Your task to perform on an android device: Go to privacy settings Image 0: 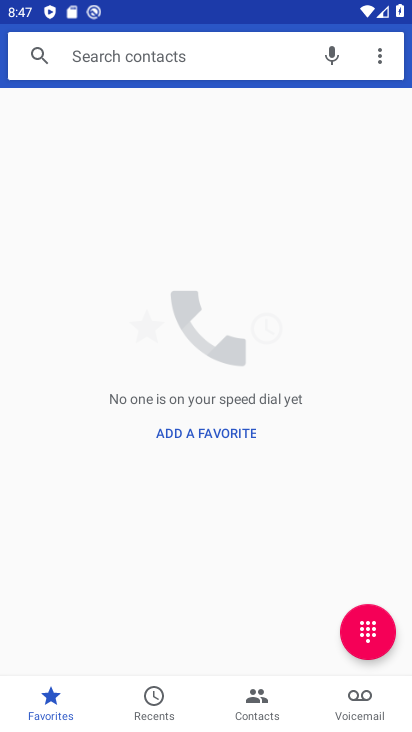
Step 0: press home button
Your task to perform on an android device: Go to privacy settings Image 1: 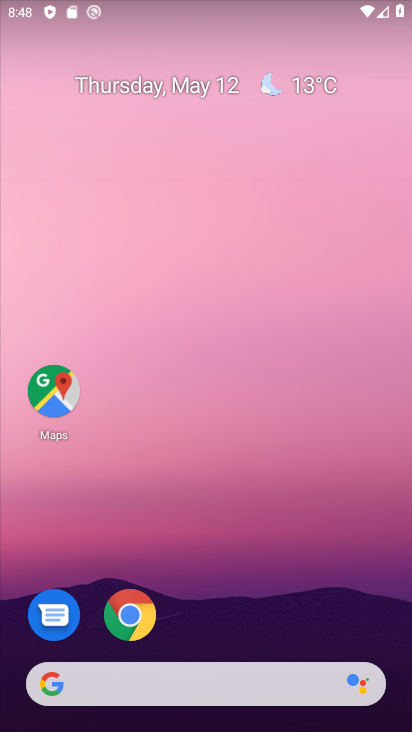
Step 1: drag from (239, 657) to (275, 6)
Your task to perform on an android device: Go to privacy settings Image 2: 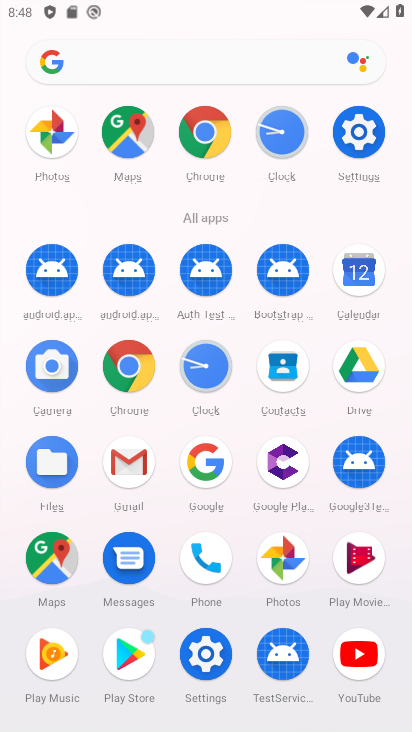
Step 2: click (346, 130)
Your task to perform on an android device: Go to privacy settings Image 3: 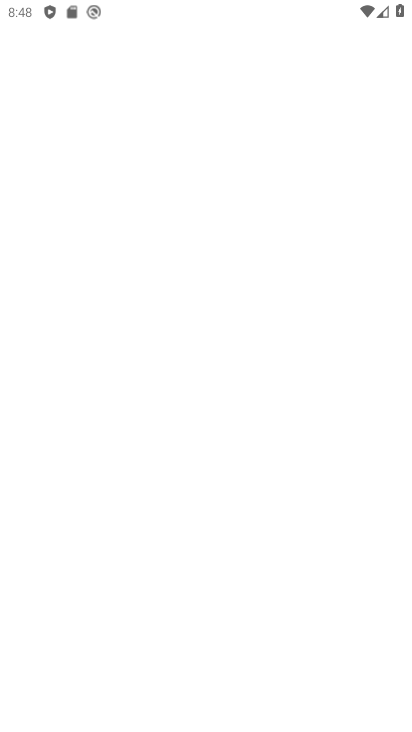
Step 3: drag from (272, 591) to (271, 56)
Your task to perform on an android device: Go to privacy settings Image 4: 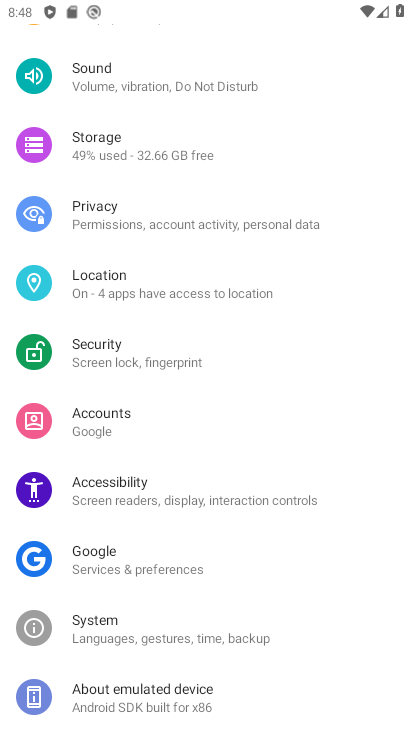
Step 4: click (89, 238)
Your task to perform on an android device: Go to privacy settings Image 5: 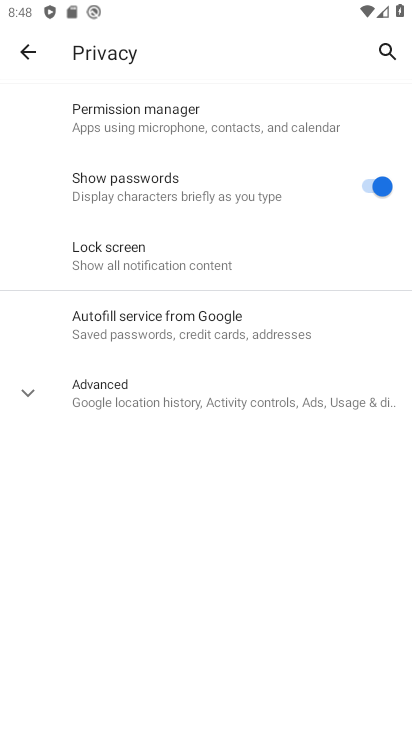
Step 5: click (133, 408)
Your task to perform on an android device: Go to privacy settings Image 6: 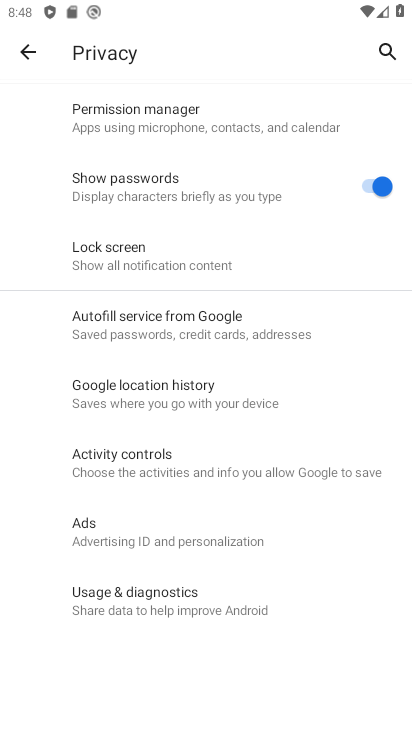
Step 6: task complete